Your task to perform on an android device: Check the settings for the Google Maps app Image 0: 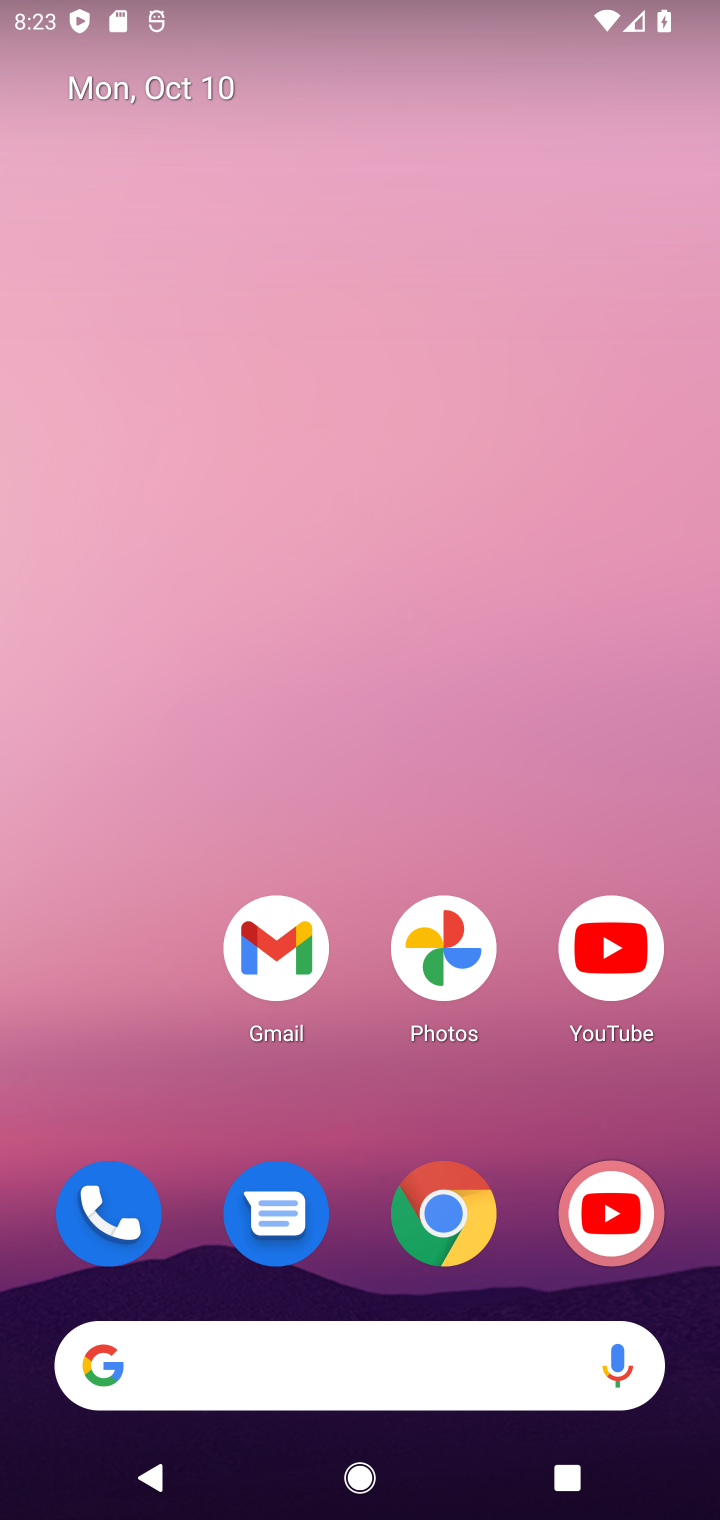
Step 0: drag from (153, 1063) to (401, 22)
Your task to perform on an android device: Check the settings for the Google Maps app Image 1: 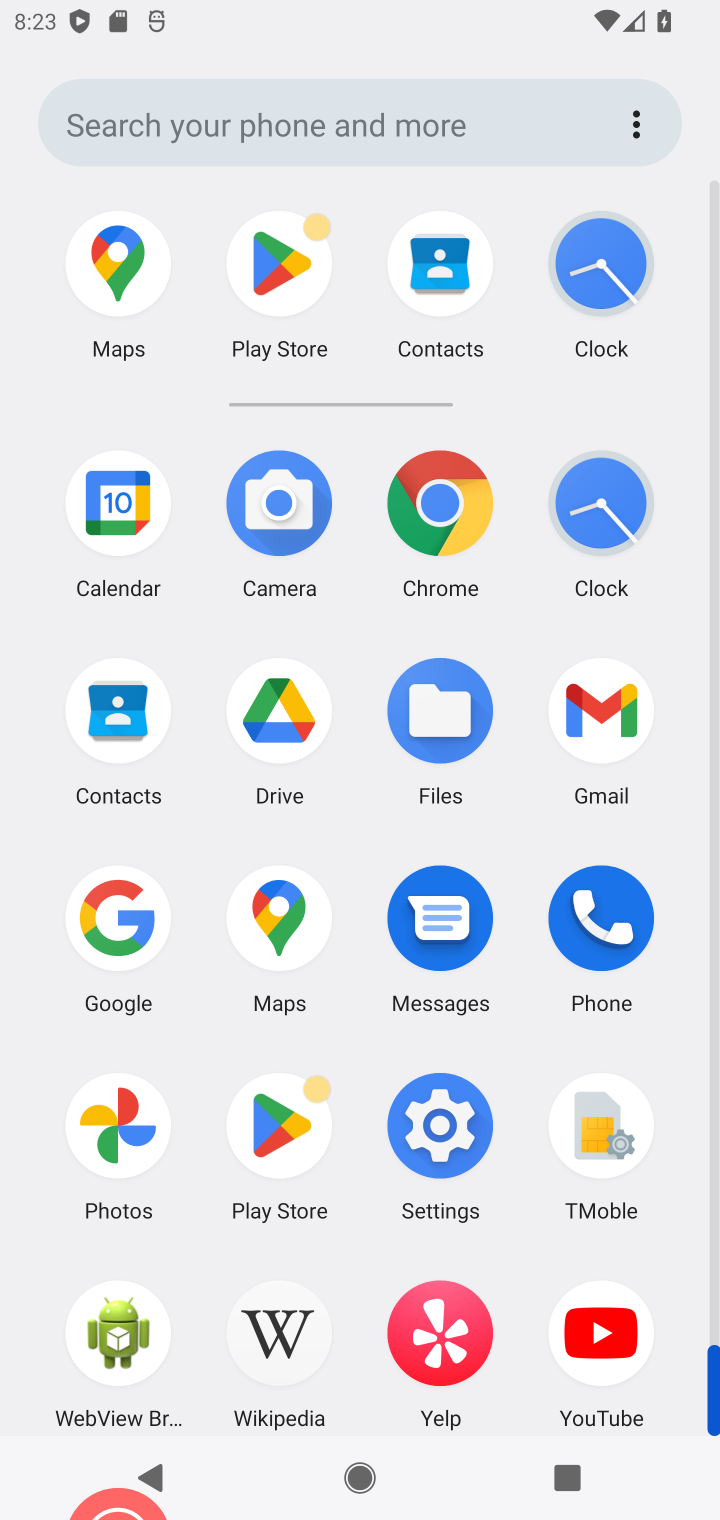
Step 1: click (263, 953)
Your task to perform on an android device: Check the settings for the Google Maps app Image 2: 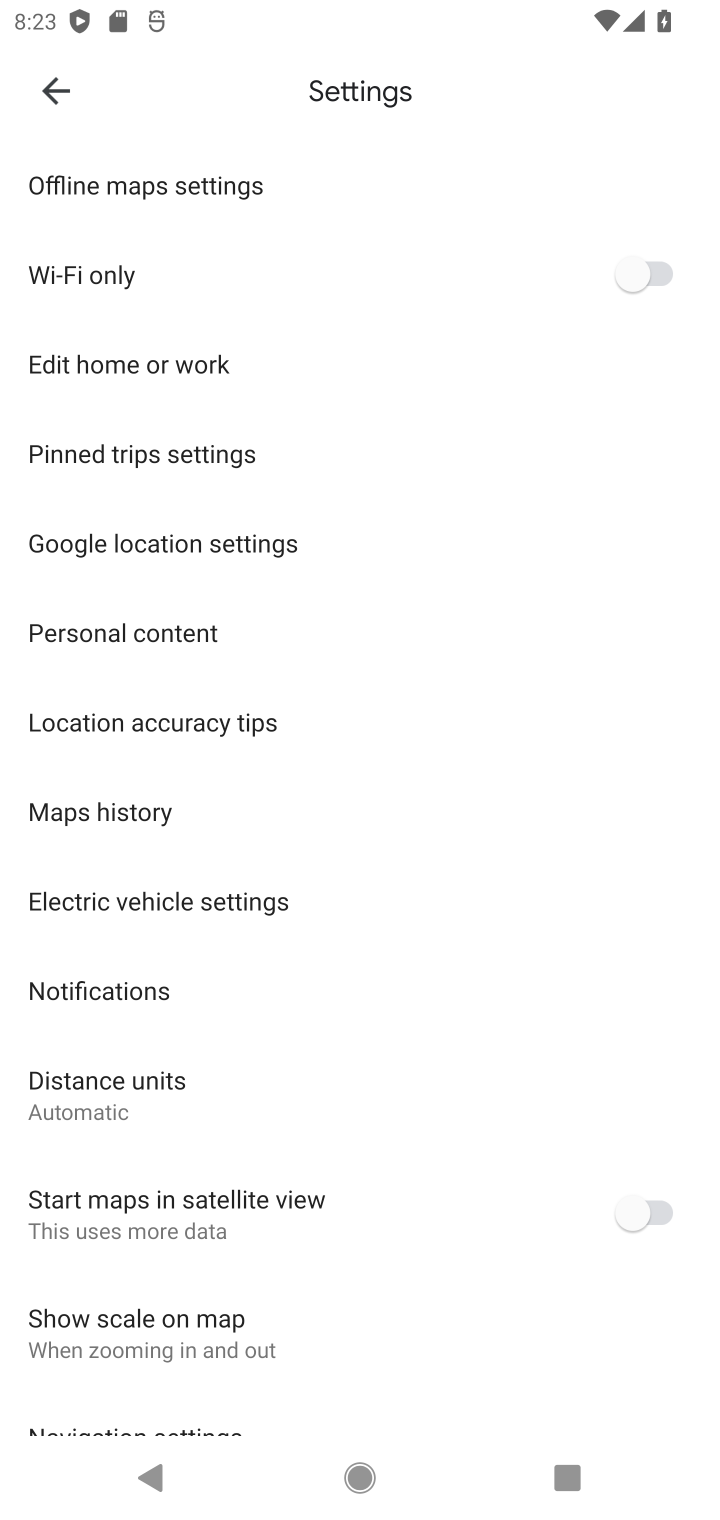
Step 2: task complete